Your task to perform on an android device: turn notification dots off Image 0: 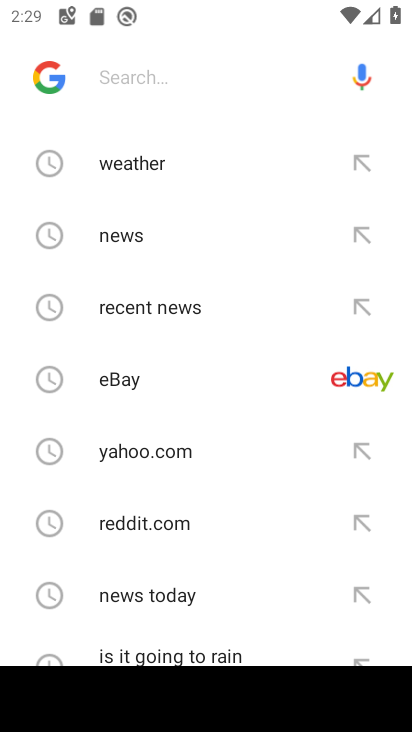
Step 0: press home button
Your task to perform on an android device: turn notification dots off Image 1: 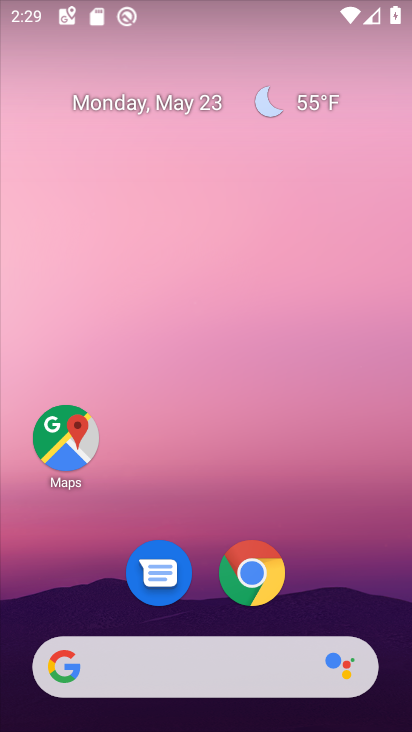
Step 1: drag from (316, 598) to (269, 204)
Your task to perform on an android device: turn notification dots off Image 2: 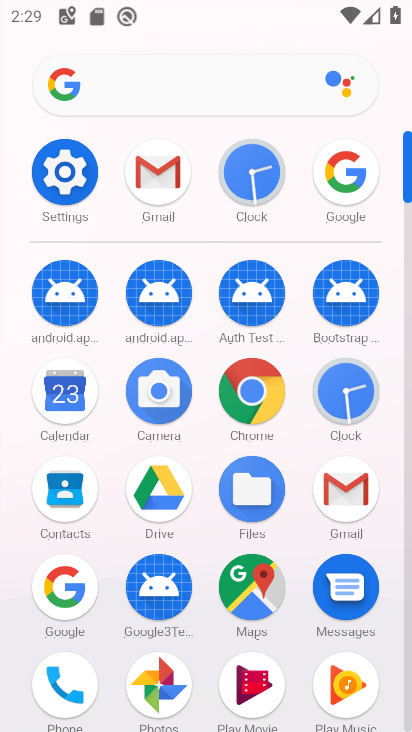
Step 2: click (50, 175)
Your task to perform on an android device: turn notification dots off Image 3: 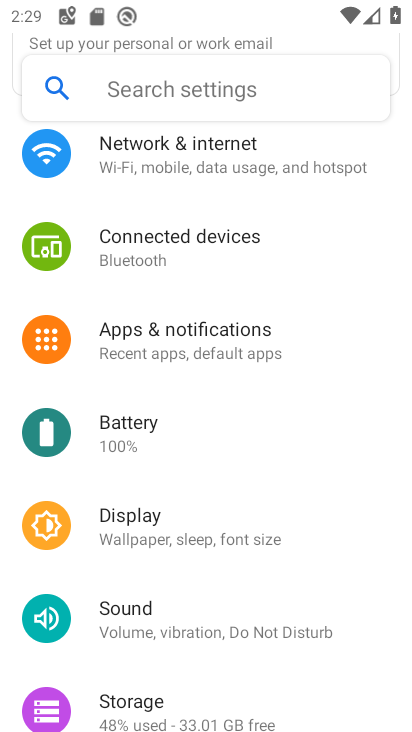
Step 3: click (240, 360)
Your task to perform on an android device: turn notification dots off Image 4: 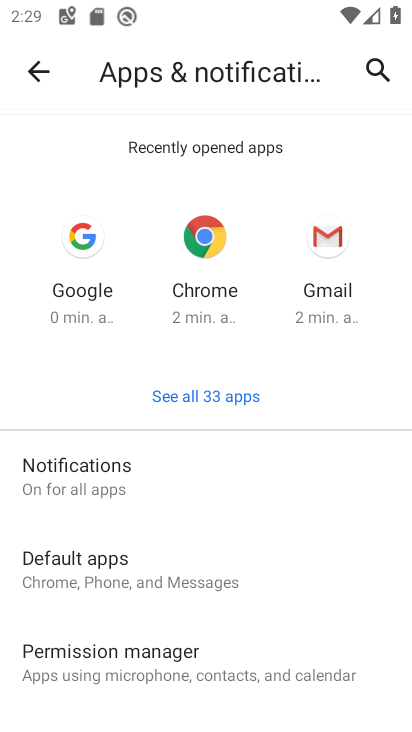
Step 4: click (173, 479)
Your task to perform on an android device: turn notification dots off Image 5: 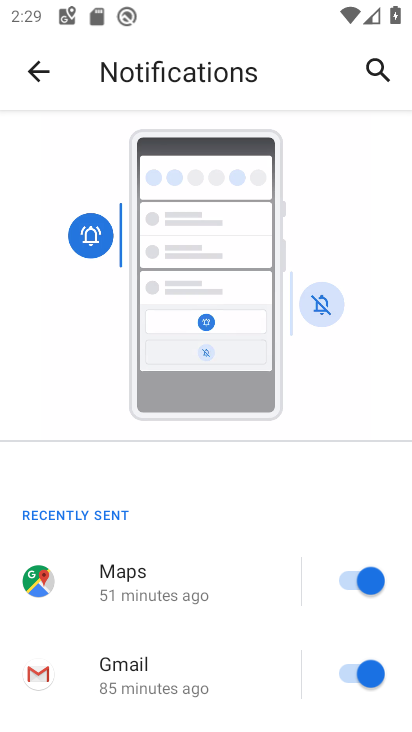
Step 5: drag from (217, 666) to (224, 288)
Your task to perform on an android device: turn notification dots off Image 6: 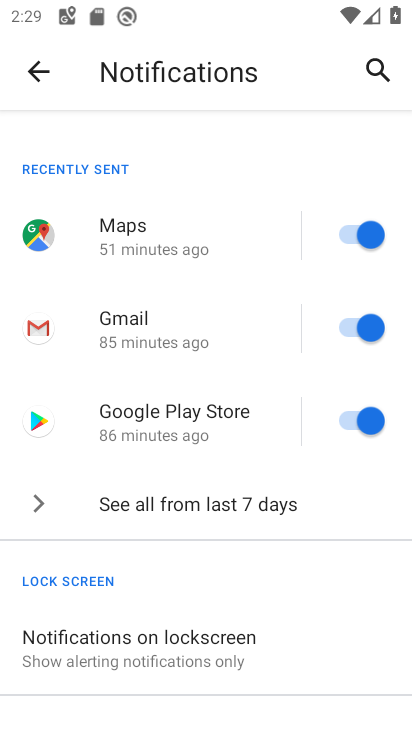
Step 6: drag from (290, 580) to (216, 130)
Your task to perform on an android device: turn notification dots off Image 7: 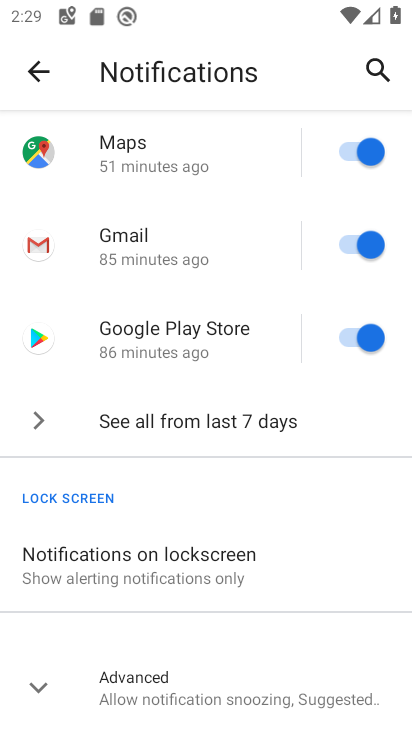
Step 7: click (213, 696)
Your task to perform on an android device: turn notification dots off Image 8: 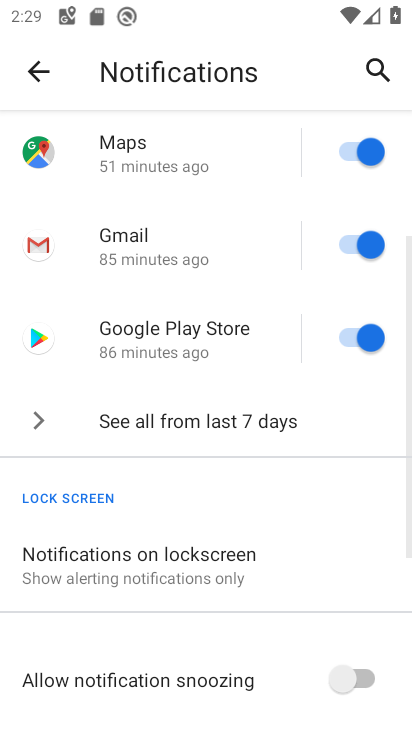
Step 8: drag from (230, 630) to (221, 193)
Your task to perform on an android device: turn notification dots off Image 9: 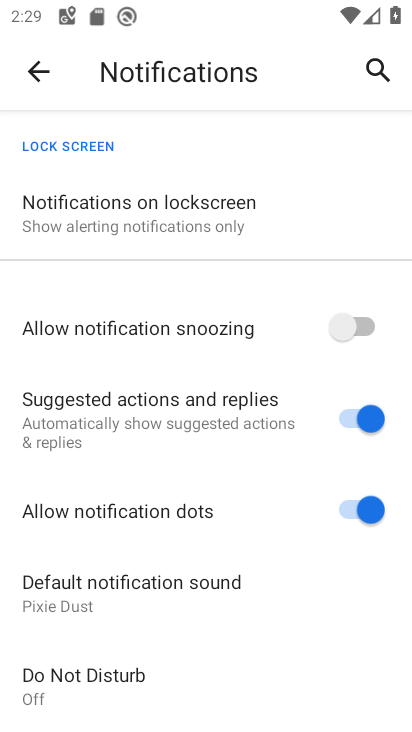
Step 9: click (349, 508)
Your task to perform on an android device: turn notification dots off Image 10: 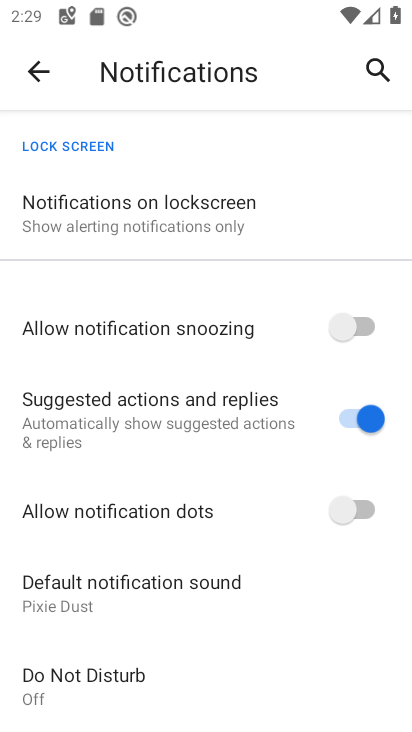
Step 10: task complete